Your task to perform on an android device: check android version Image 0: 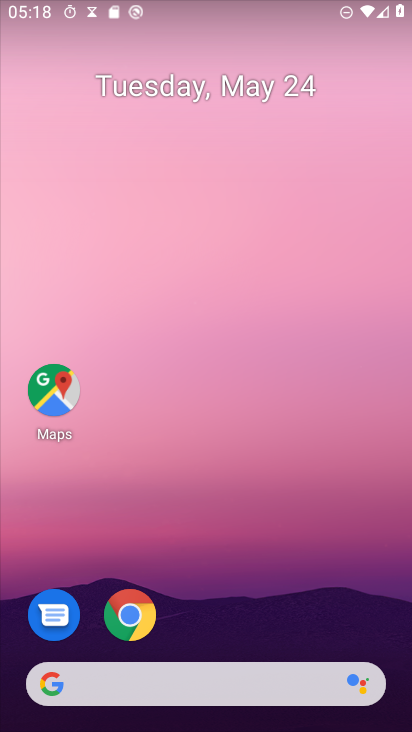
Step 0: drag from (236, 569) to (299, 87)
Your task to perform on an android device: check android version Image 1: 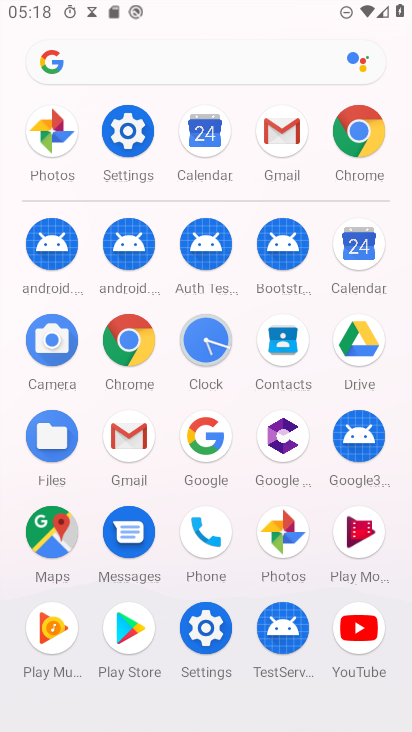
Step 1: click (127, 132)
Your task to perform on an android device: check android version Image 2: 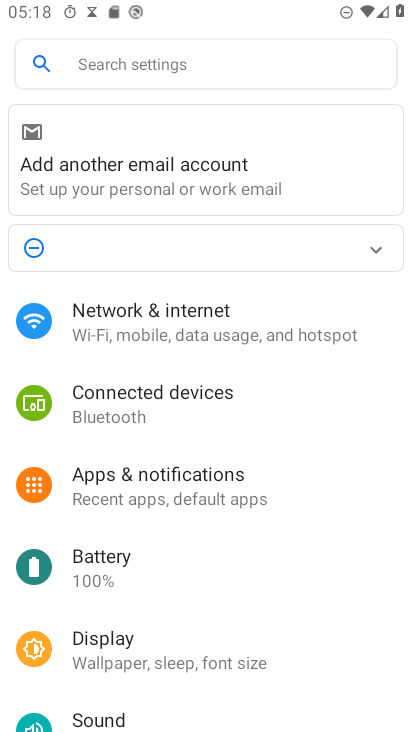
Step 2: drag from (231, 621) to (306, 69)
Your task to perform on an android device: check android version Image 3: 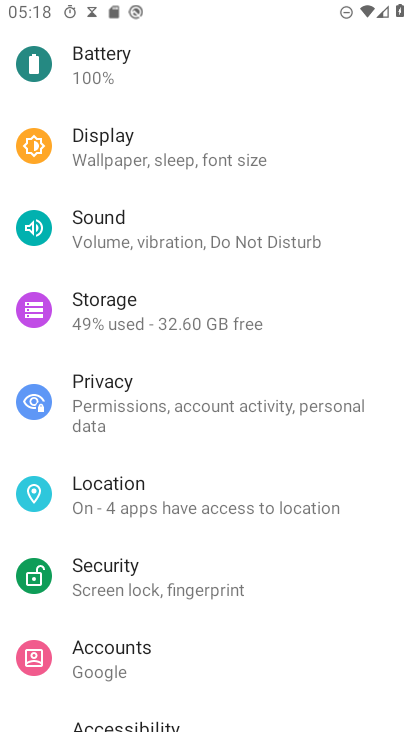
Step 3: drag from (168, 656) to (273, 129)
Your task to perform on an android device: check android version Image 4: 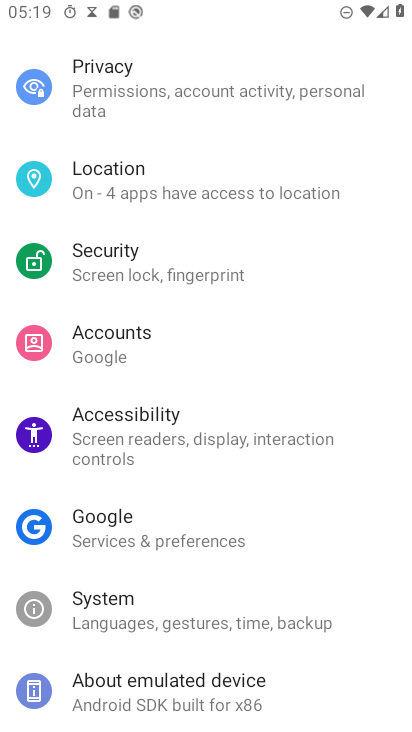
Step 4: drag from (142, 667) to (275, 70)
Your task to perform on an android device: check android version Image 5: 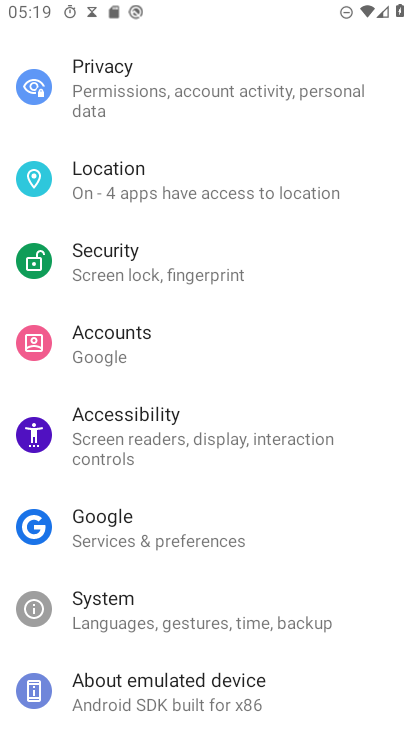
Step 5: click (175, 686)
Your task to perform on an android device: check android version Image 6: 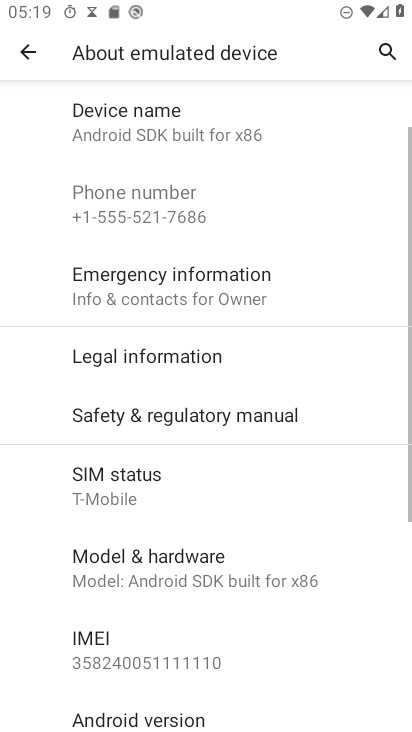
Step 6: click (118, 709)
Your task to perform on an android device: check android version Image 7: 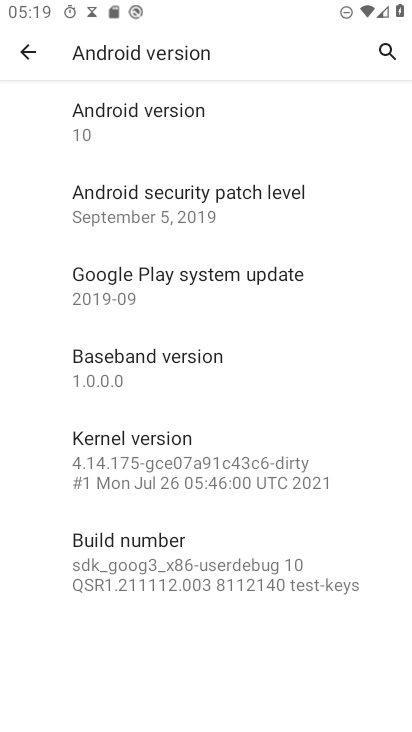
Step 7: task complete